Your task to perform on an android device: change text size in settings app Image 0: 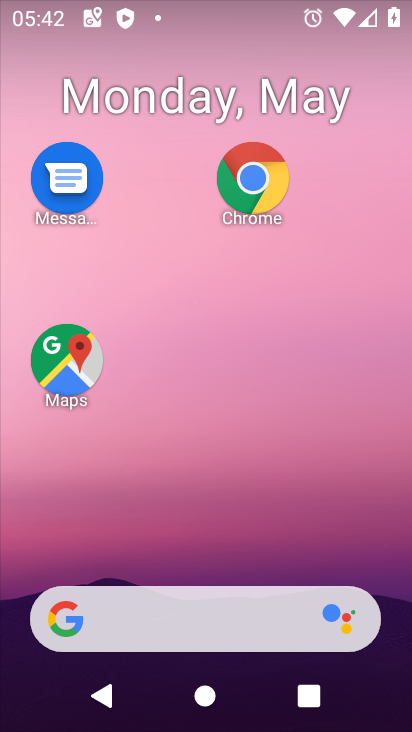
Step 0: drag from (196, 567) to (140, 209)
Your task to perform on an android device: change text size in settings app Image 1: 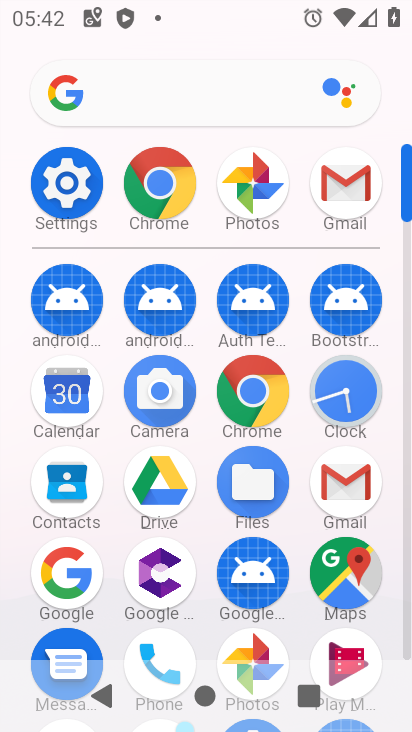
Step 1: click (61, 197)
Your task to perform on an android device: change text size in settings app Image 2: 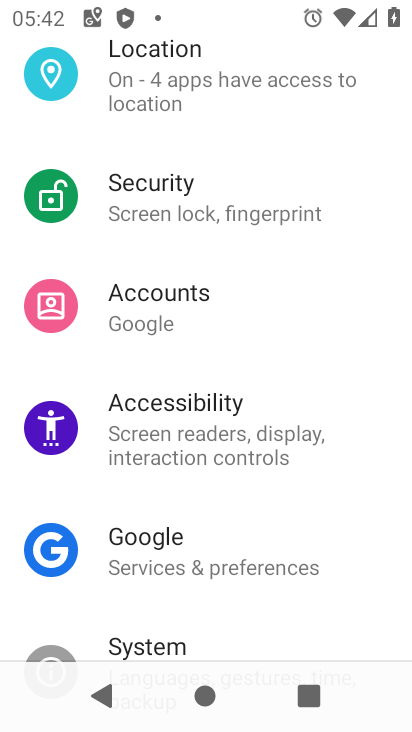
Step 2: click (173, 603)
Your task to perform on an android device: change text size in settings app Image 3: 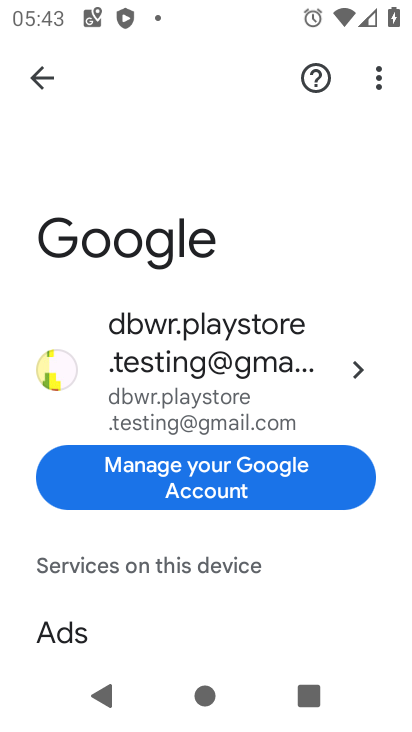
Step 3: drag from (161, 713) to (278, 714)
Your task to perform on an android device: change text size in settings app Image 4: 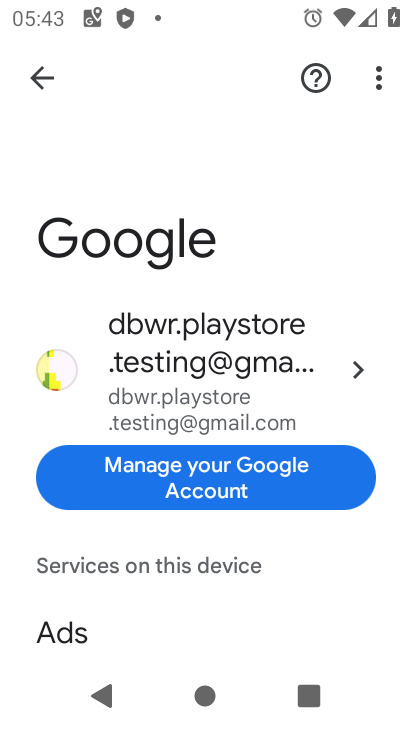
Step 4: press back button
Your task to perform on an android device: change text size in settings app Image 5: 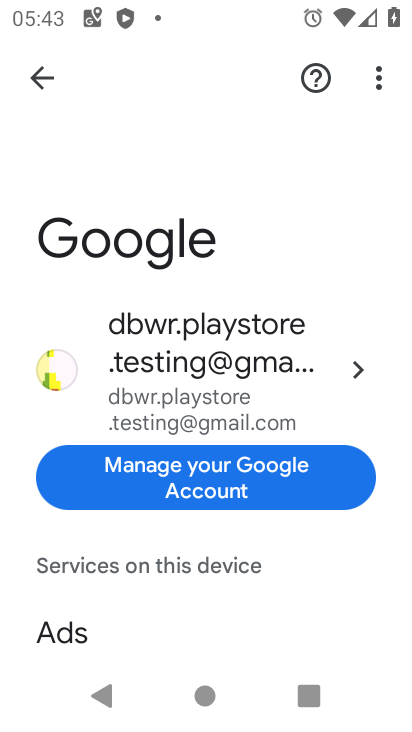
Step 5: press back button
Your task to perform on an android device: change text size in settings app Image 6: 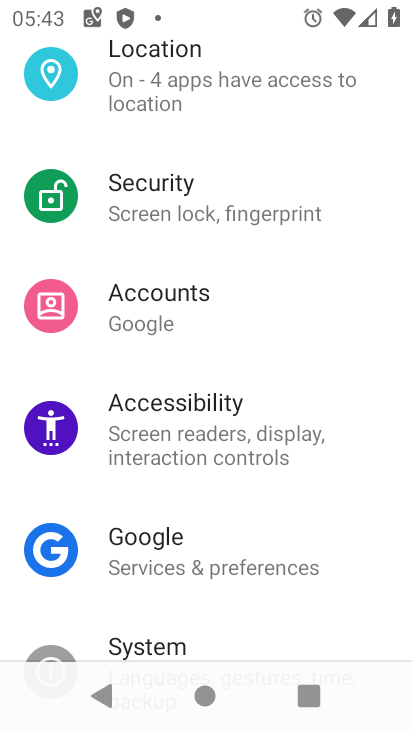
Step 6: drag from (158, 229) to (147, 605)
Your task to perform on an android device: change text size in settings app Image 7: 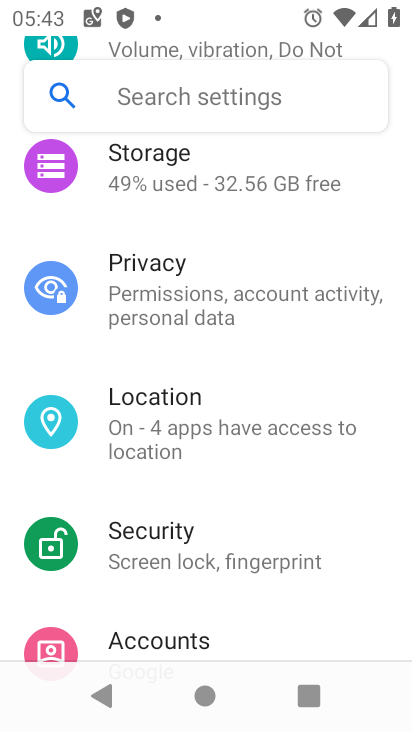
Step 7: drag from (173, 288) to (179, 623)
Your task to perform on an android device: change text size in settings app Image 8: 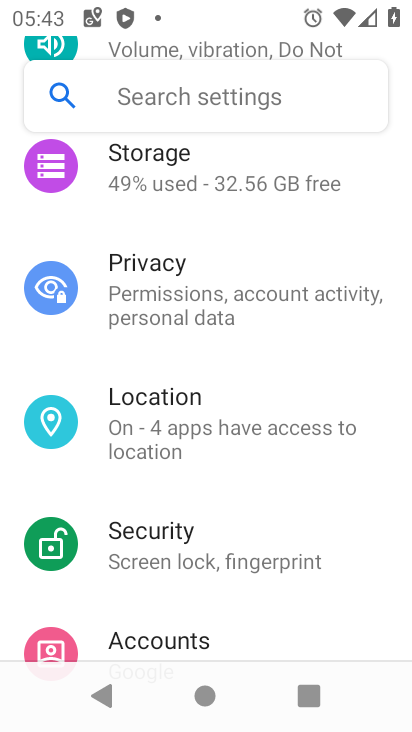
Step 8: drag from (223, 294) to (243, 719)
Your task to perform on an android device: change text size in settings app Image 9: 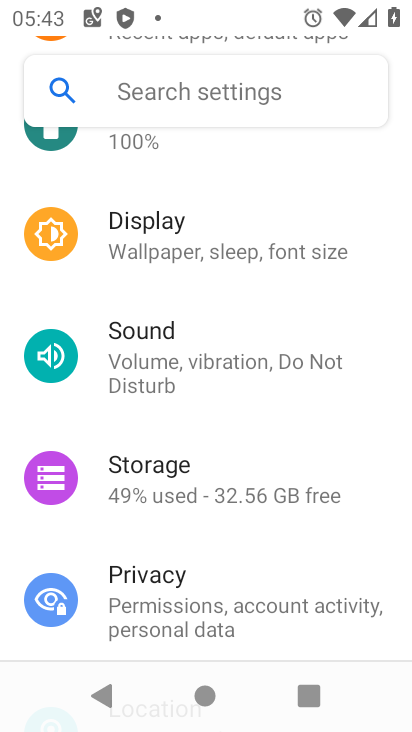
Step 9: drag from (167, 214) to (164, 647)
Your task to perform on an android device: change text size in settings app Image 10: 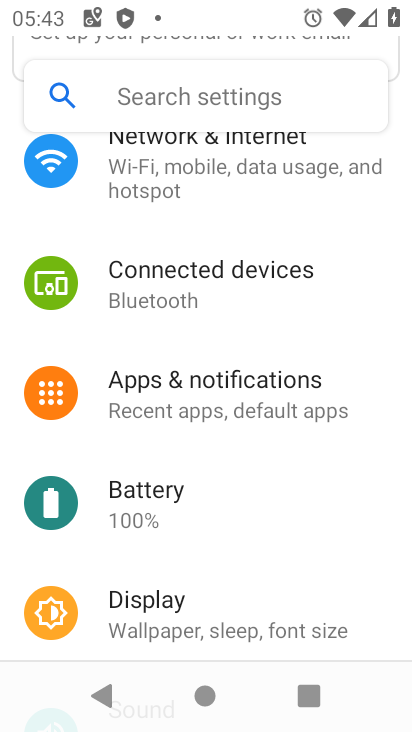
Step 10: drag from (165, 272) to (180, 431)
Your task to perform on an android device: change text size in settings app Image 11: 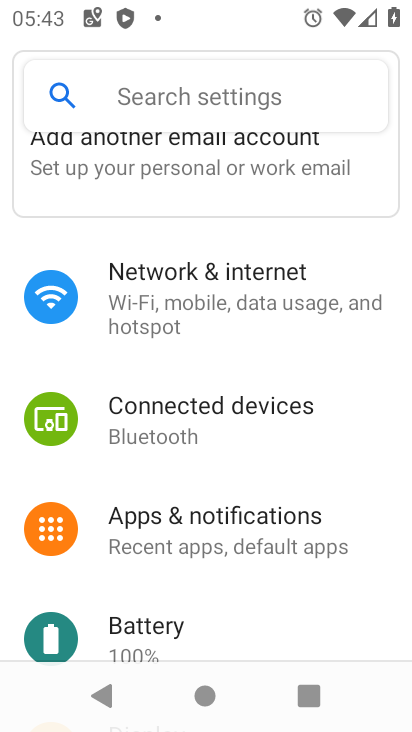
Step 11: drag from (176, 613) to (187, 209)
Your task to perform on an android device: change text size in settings app Image 12: 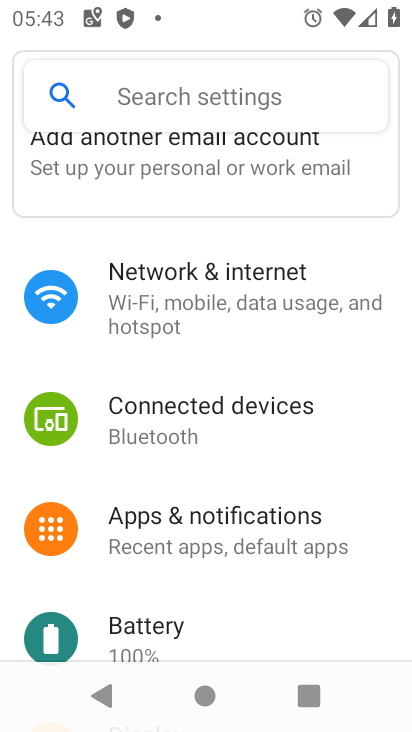
Step 12: drag from (220, 581) to (200, 415)
Your task to perform on an android device: change text size in settings app Image 13: 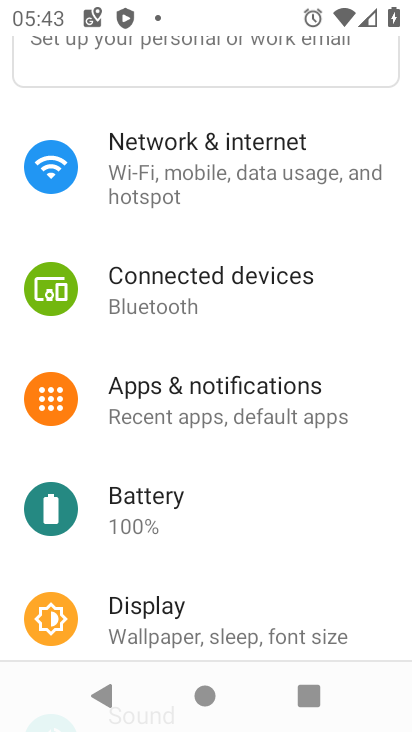
Step 13: click (150, 627)
Your task to perform on an android device: change text size in settings app Image 14: 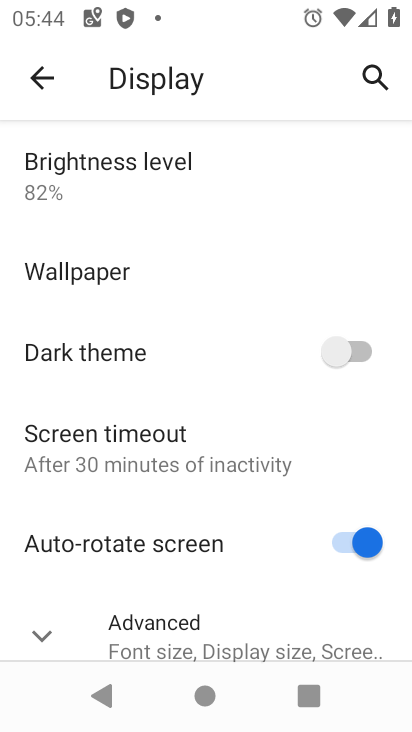
Step 14: click (185, 627)
Your task to perform on an android device: change text size in settings app Image 15: 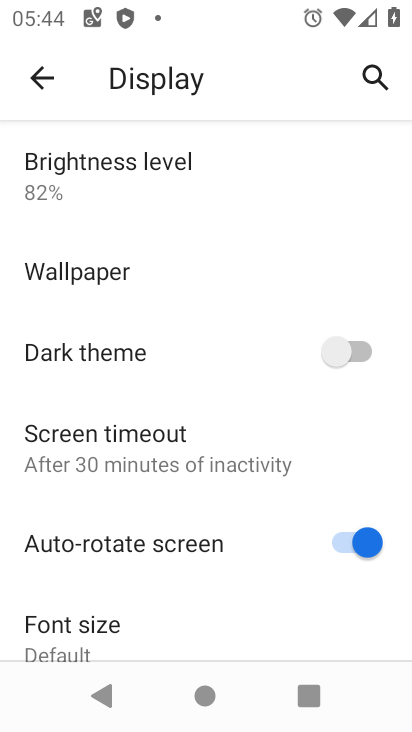
Step 15: click (103, 637)
Your task to perform on an android device: change text size in settings app Image 16: 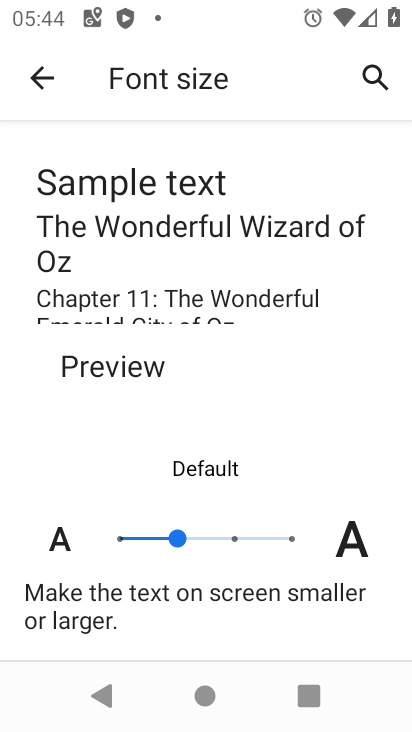
Step 16: click (215, 533)
Your task to perform on an android device: change text size in settings app Image 17: 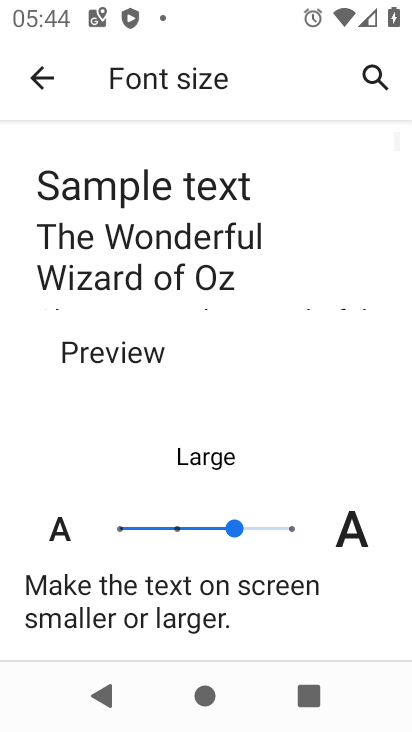
Step 17: task complete